Your task to perform on an android device: change alarm snooze length Image 0: 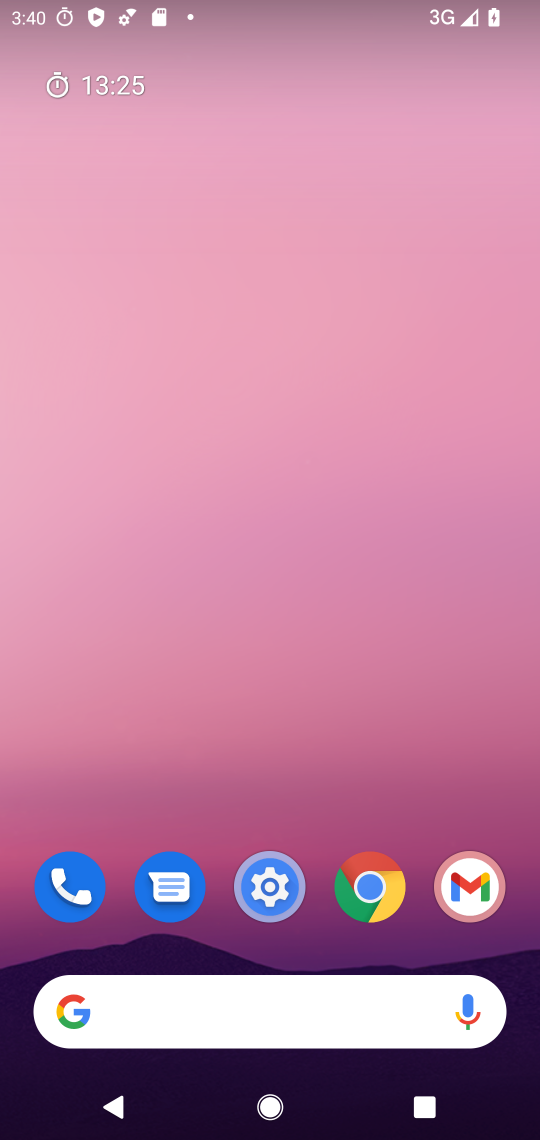
Step 0: press home button
Your task to perform on an android device: change alarm snooze length Image 1: 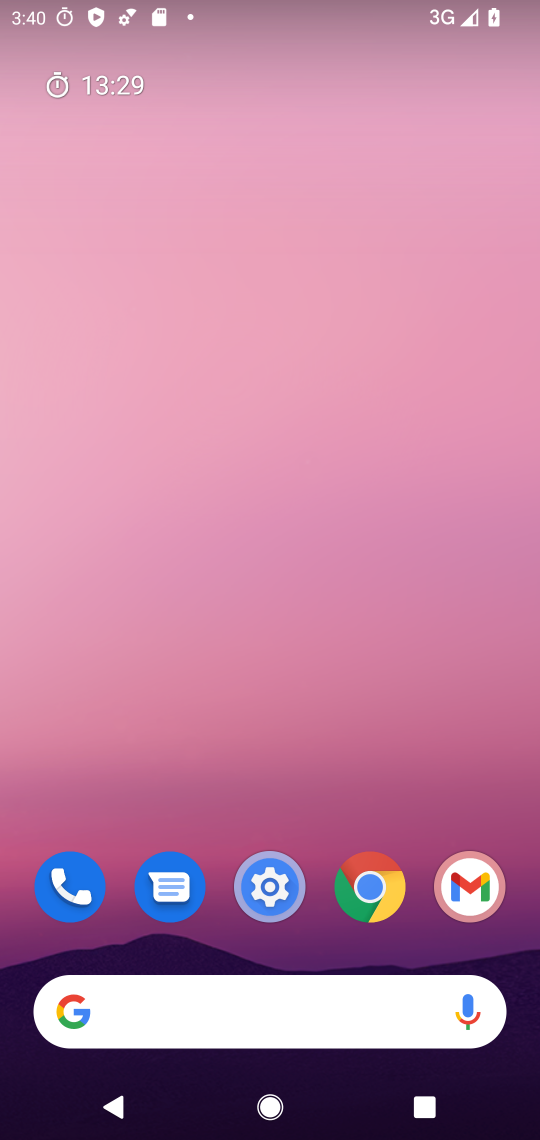
Step 1: drag from (415, 811) to (419, 184)
Your task to perform on an android device: change alarm snooze length Image 2: 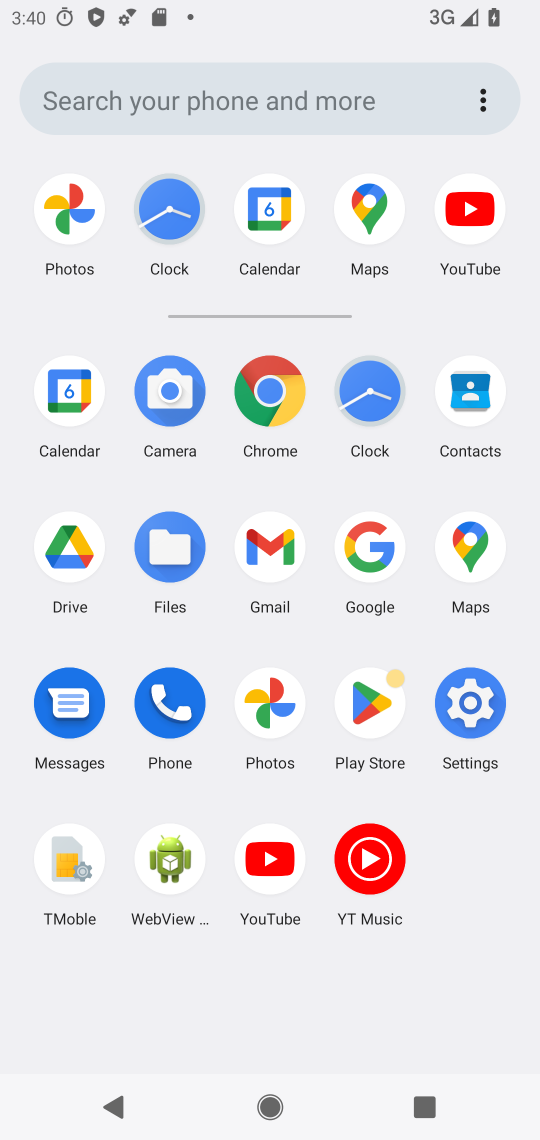
Step 2: click (372, 385)
Your task to perform on an android device: change alarm snooze length Image 3: 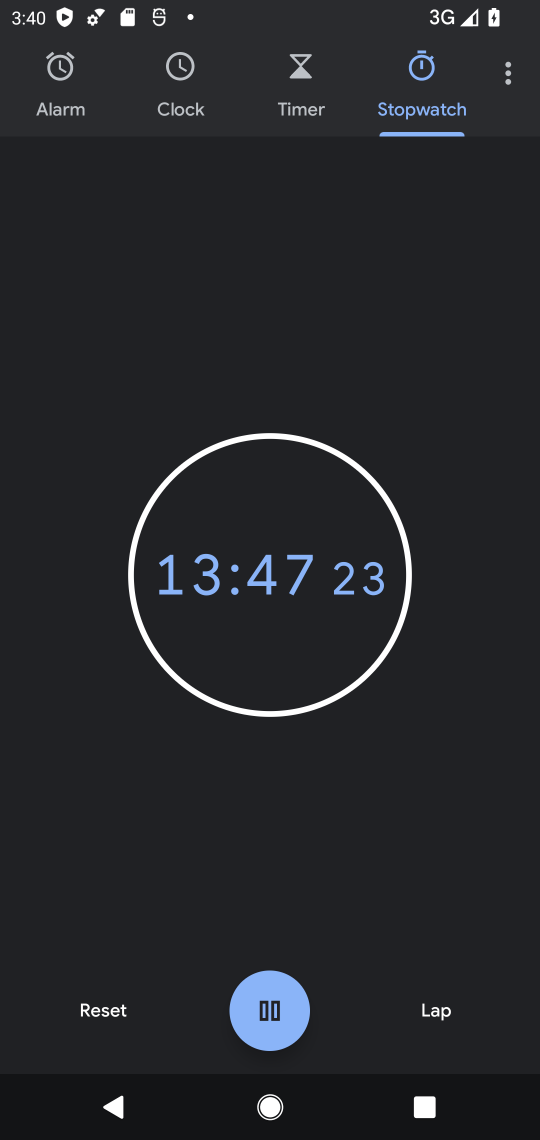
Step 3: click (512, 84)
Your task to perform on an android device: change alarm snooze length Image 4: 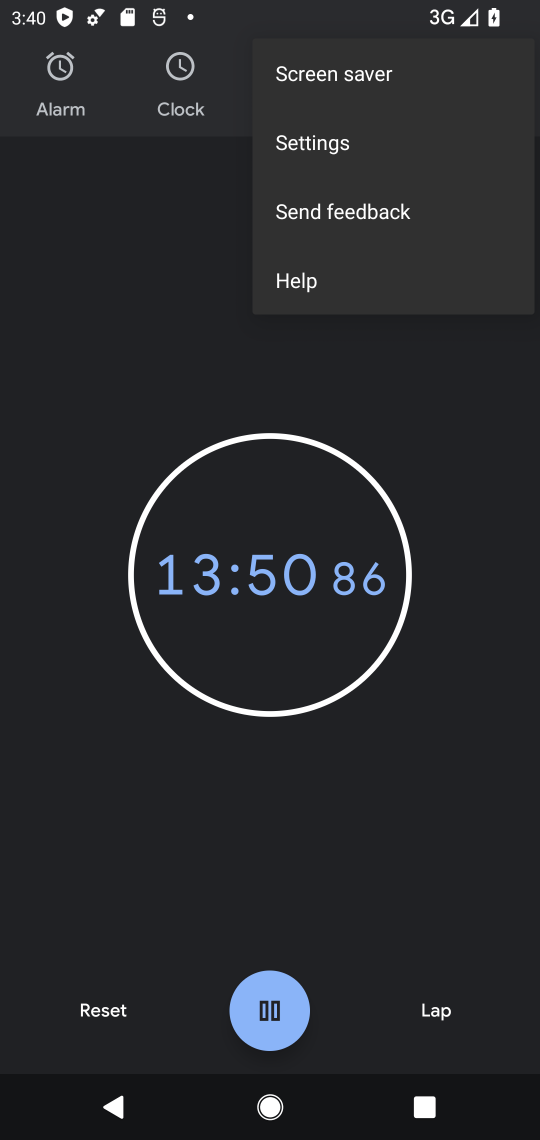
Step 4: click (382, 153)
Your task to perform on an android device: change alarm snooze length Image 5: 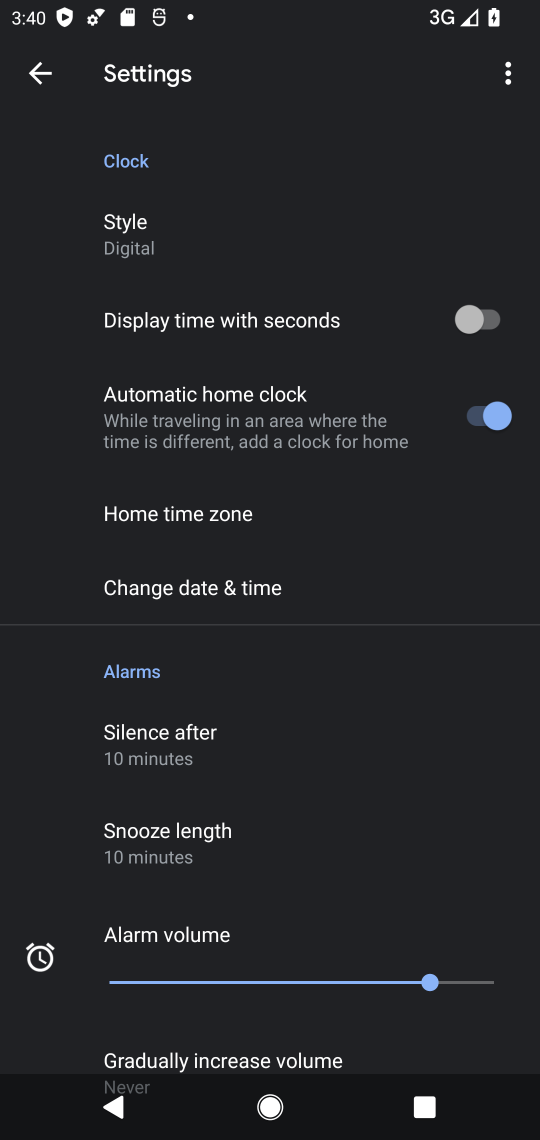
Step 5: drag from (385, 211) to (385, 535)
Your task to perform on an android device: change alarm snooze length Image 6: 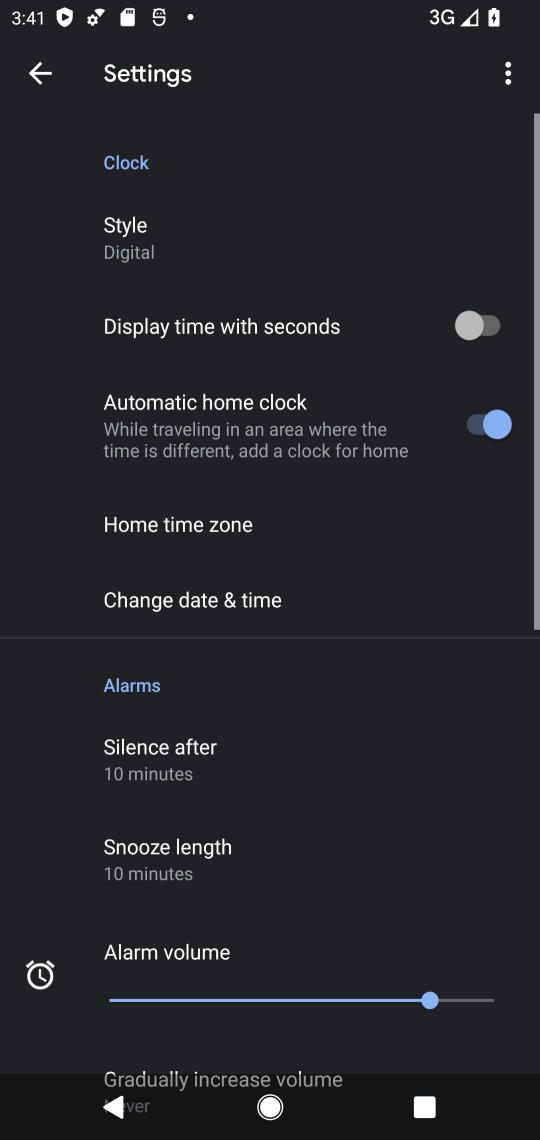
Step 6: drag from (383, 507) to (418, 404)
Your task to perform on an android device: change alarm snooze length Image 7: 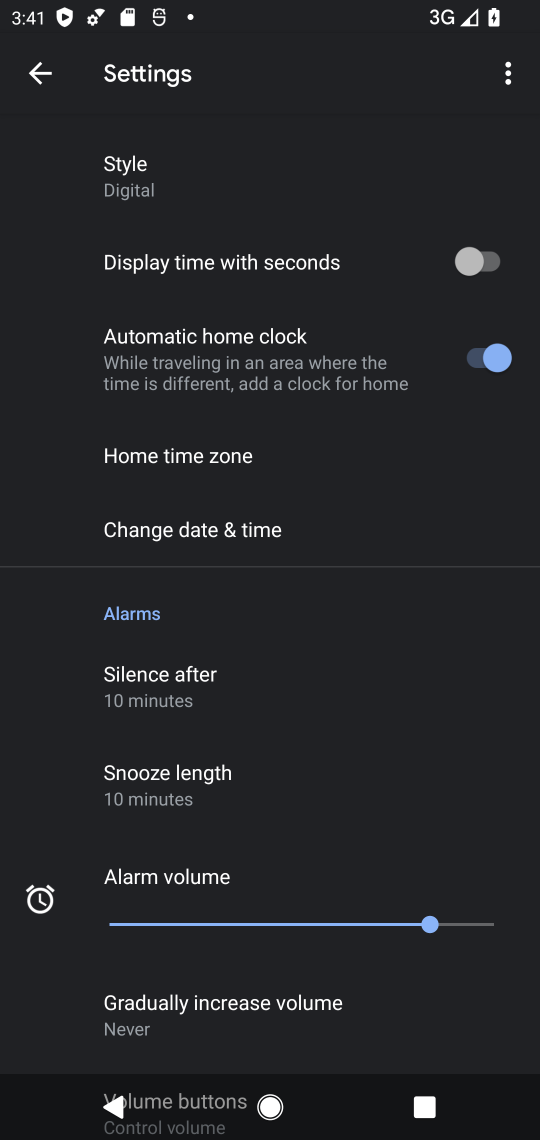
Step 7: drag from (355, 566) to (402, 435)
Your task to perform on an android device: change alarm snooze length Image 8: 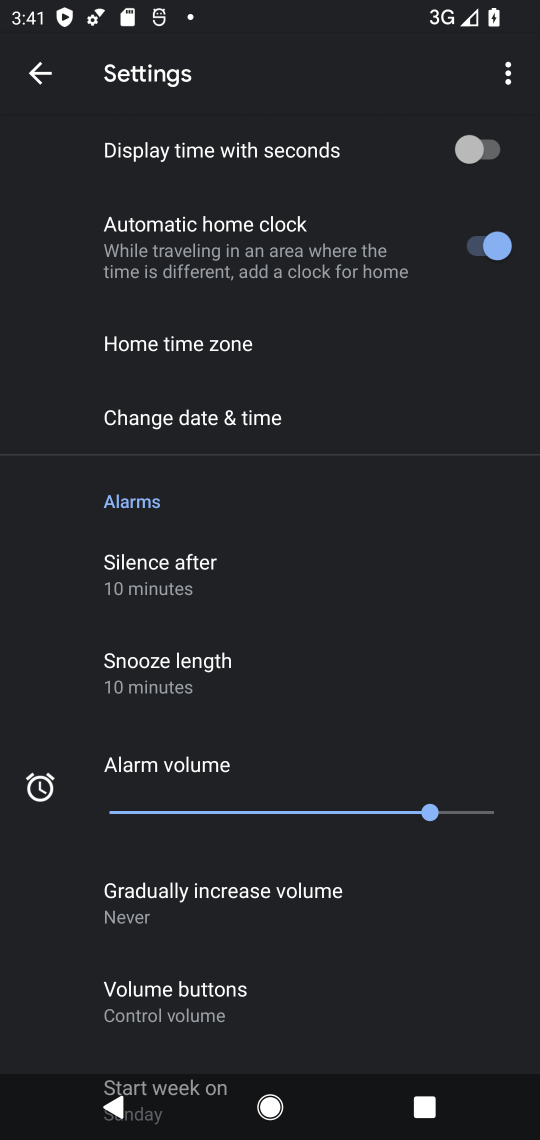
Step 8: drag from (339, 654) to (344, 483)
Your task to perform on an android device: change alarm snooze length Image 9: 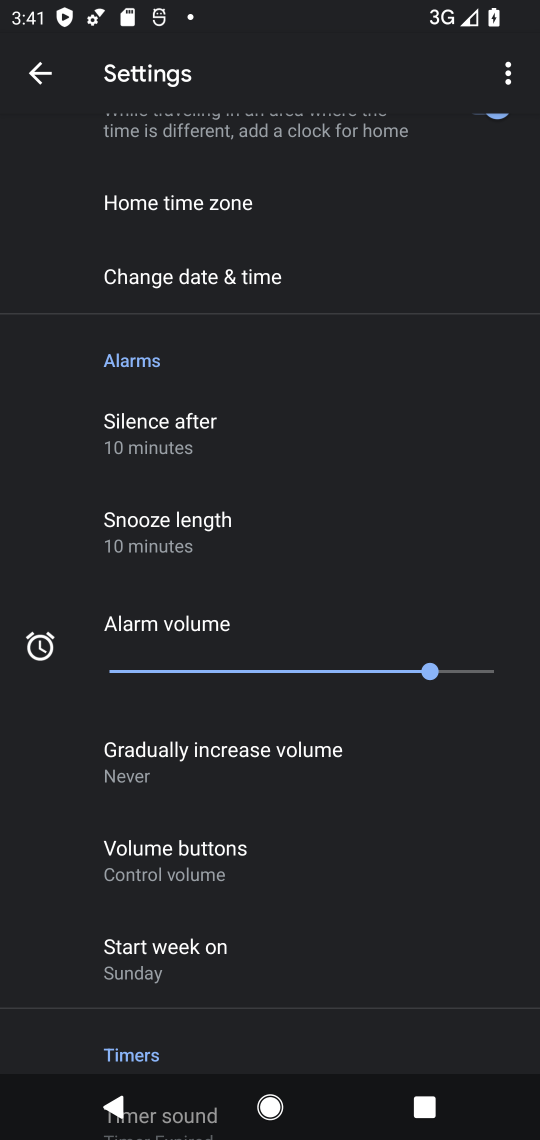
Step 9: drag from (322, 596) to (354, 401)
Your task to perform on an android device: change alarm snooze length Image 10: 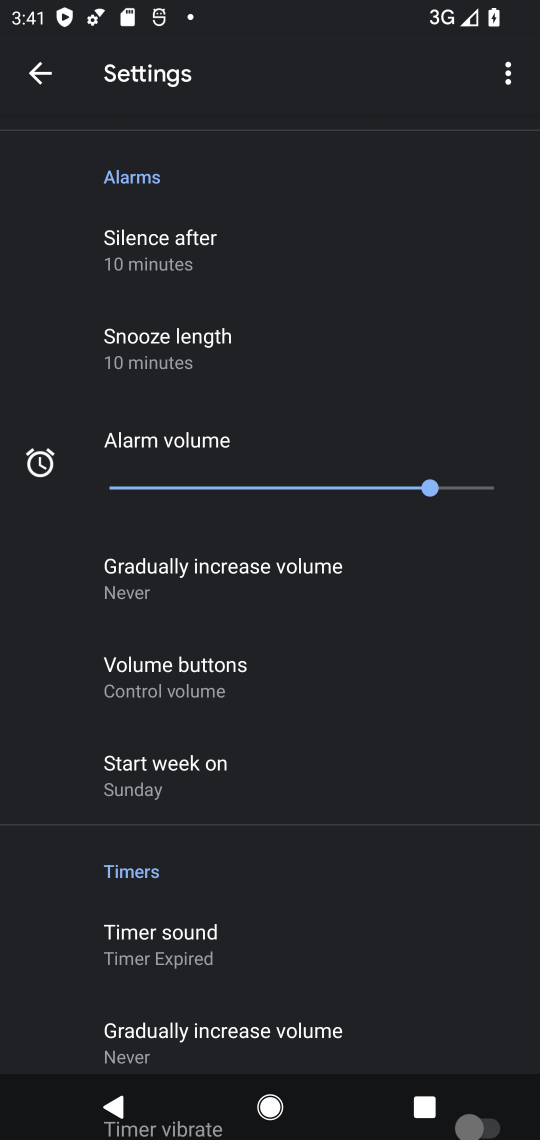
Step 10: click (237, 353)
Your task to perform on an android device: change alarm snooze length Image 11: 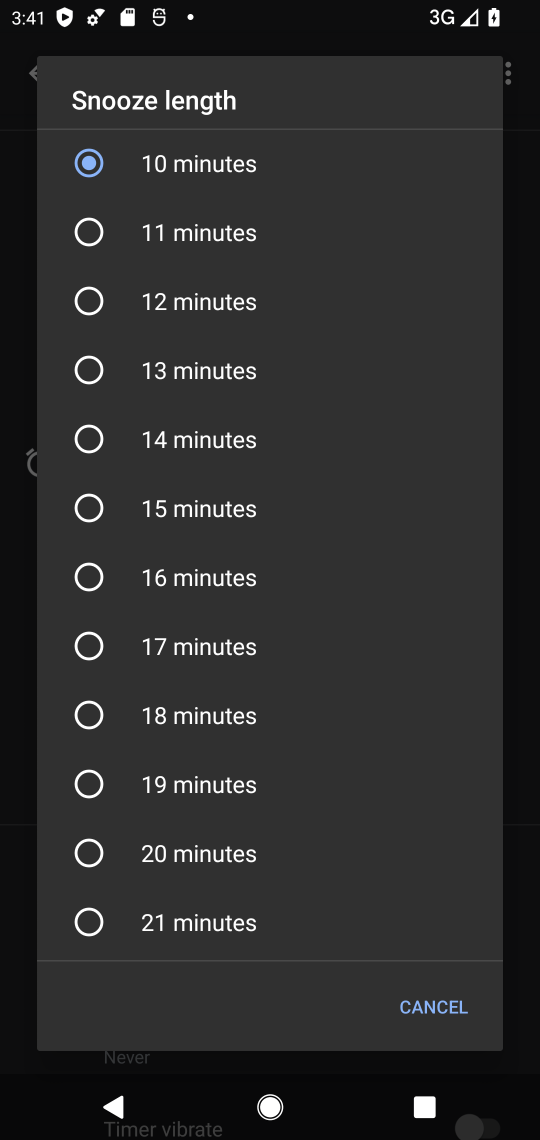
Step 11: click (228, 530)
Your task to perform on an android device: change alarm snooze length Image 12: 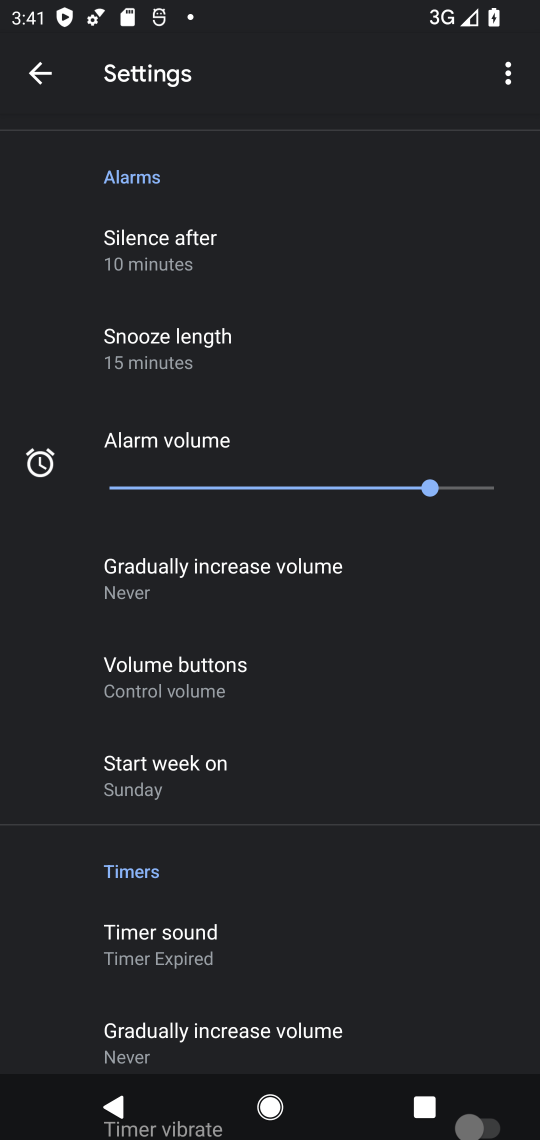
Step 12: task complete